Your task to perform on an android device: see creations saved in the google photos Image 0: 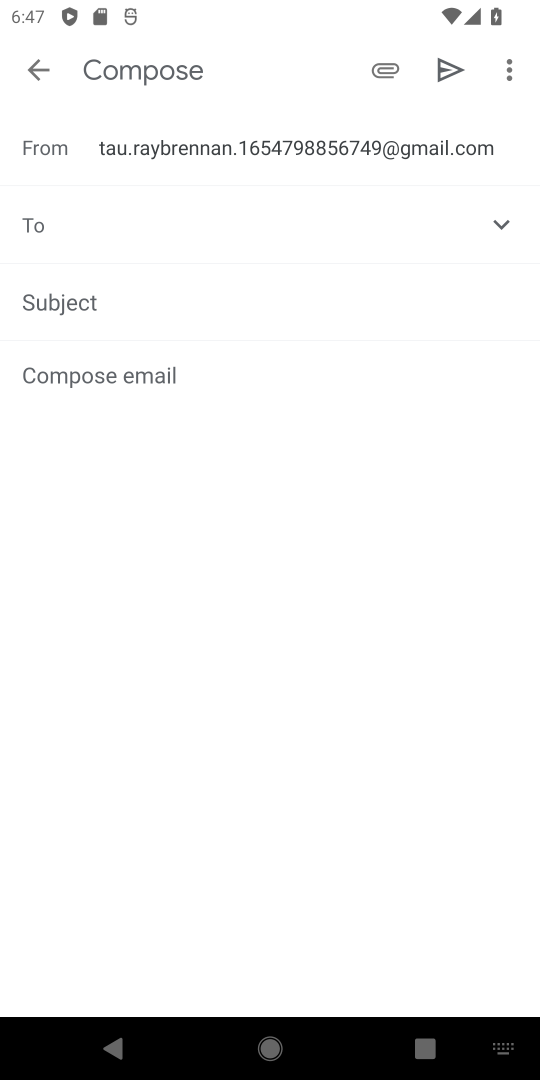
Step 0: press home button
Your task to perform on an android device: see creations saved in the google photos Image 1: 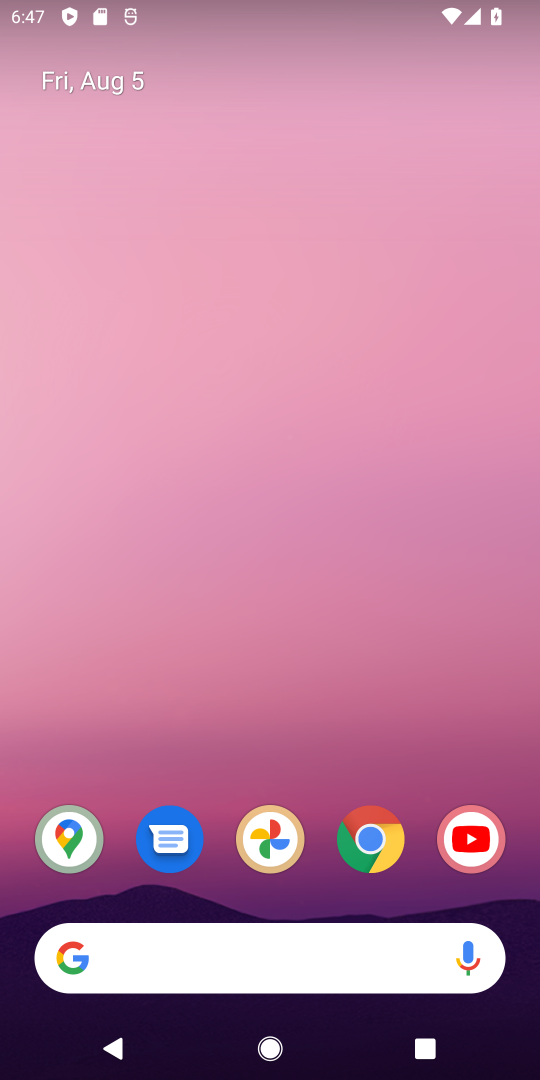
Step 1: drag from (311, 796) to (266, 325)
Your task to perform on an android device: see creations saved in the google photos Image 2: 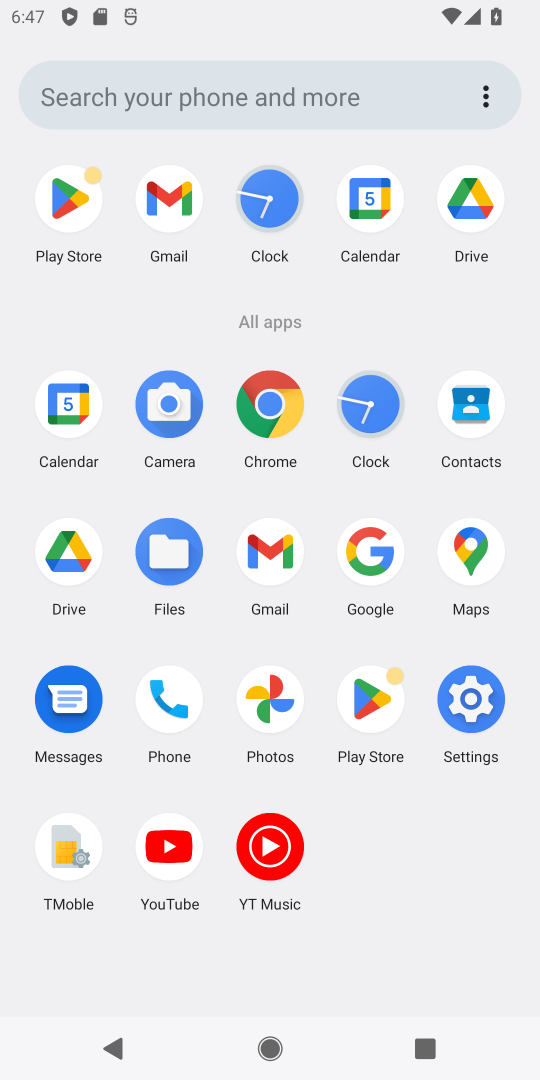
Step 2: click (265, 691)
Your task to perform on an android device: see creations saved in the google photos Image 3: 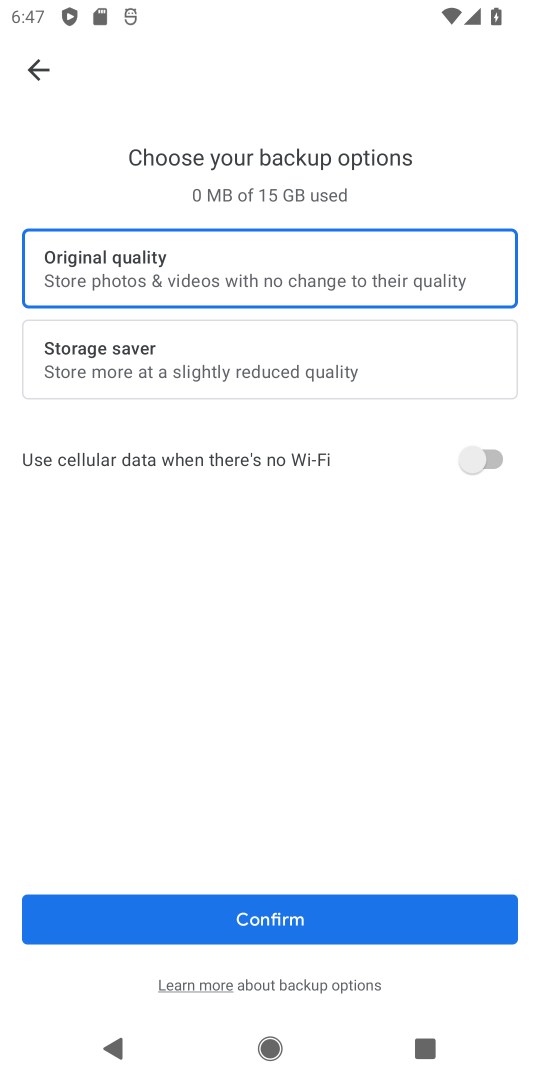
Step 3: click (34, 62)
Your task to perform on an android device: see creations saved in the google photos Image 4: 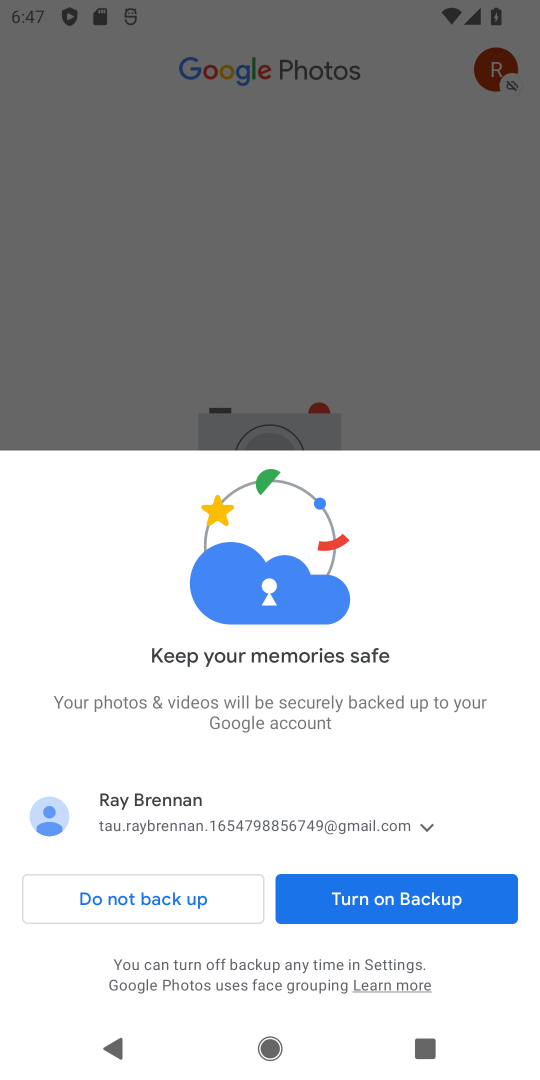
Step 4: click (335, 365)
Your task to perform on an android device: see creations saved in the google photos Image 5: 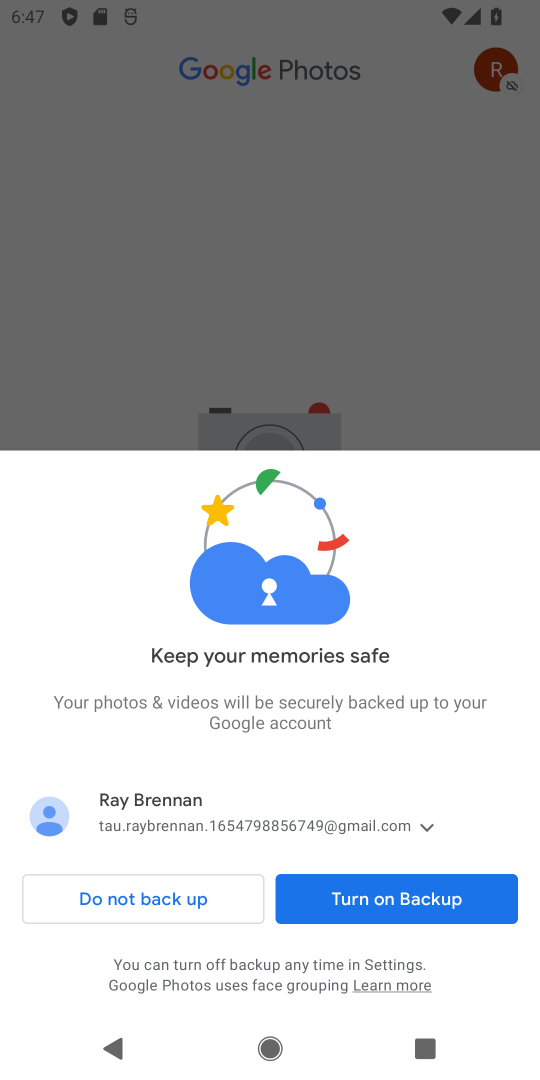
Step 5: click (180, 901)
Your task to perform on an android device: see creations saved in the google photos Image 6: 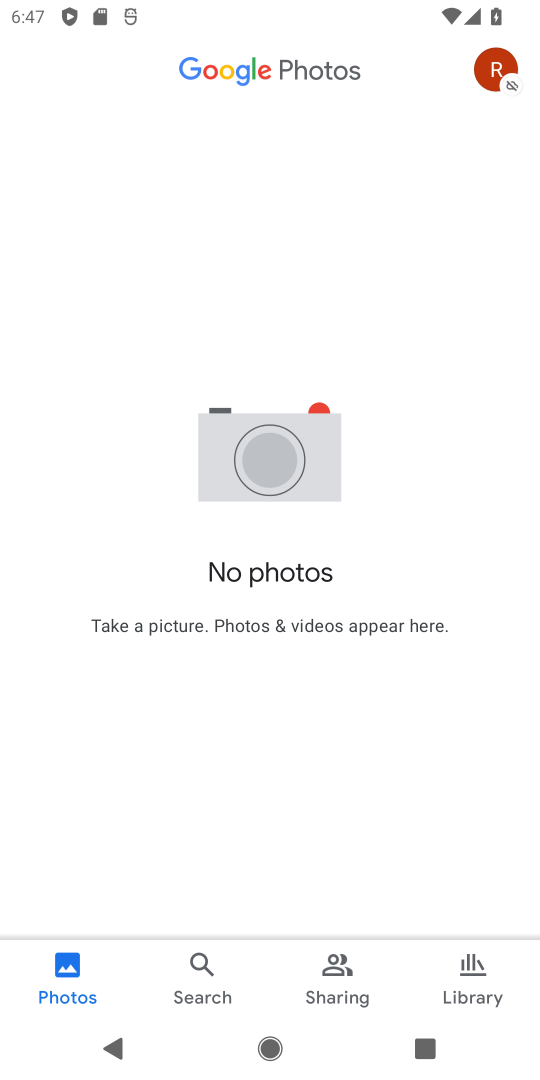
Step 6: click (202, 968)
Your task to perform on an android device: see creations saved in the google photos Image 7: 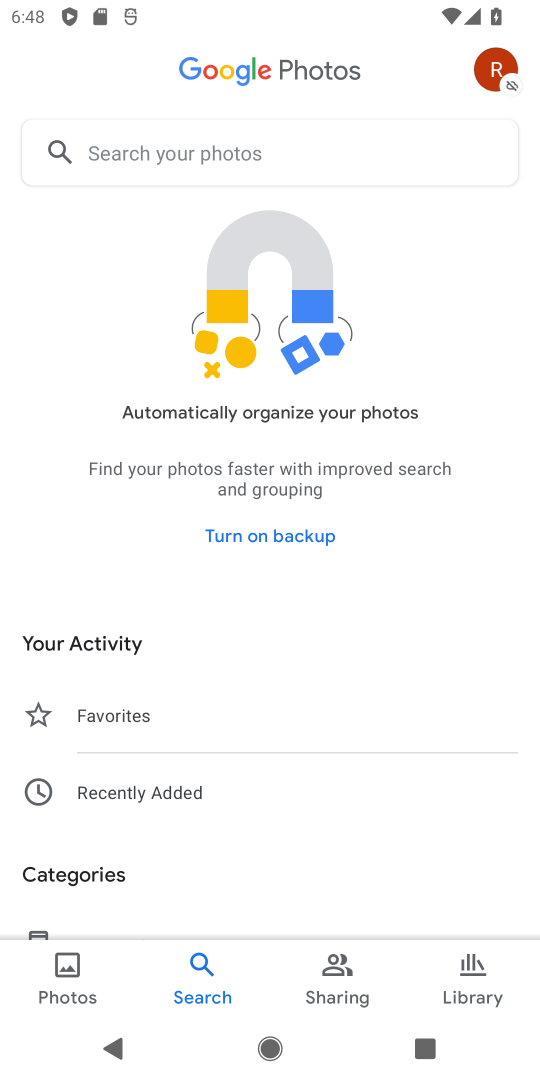
Step 7: drag from (180, 782) to (156, 497)
Your task to perform on an android device: see creations saved in the google photos Image 8: 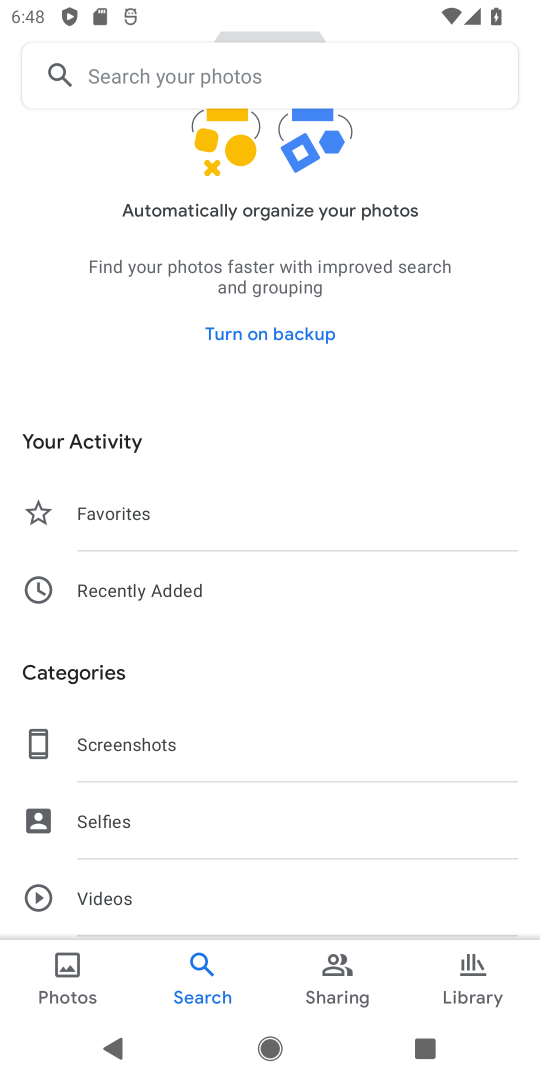
Step 8: drag from (156, 897) to (125, 473)
Your task to perform on an android device: see creations saved in the google photos Image 9: 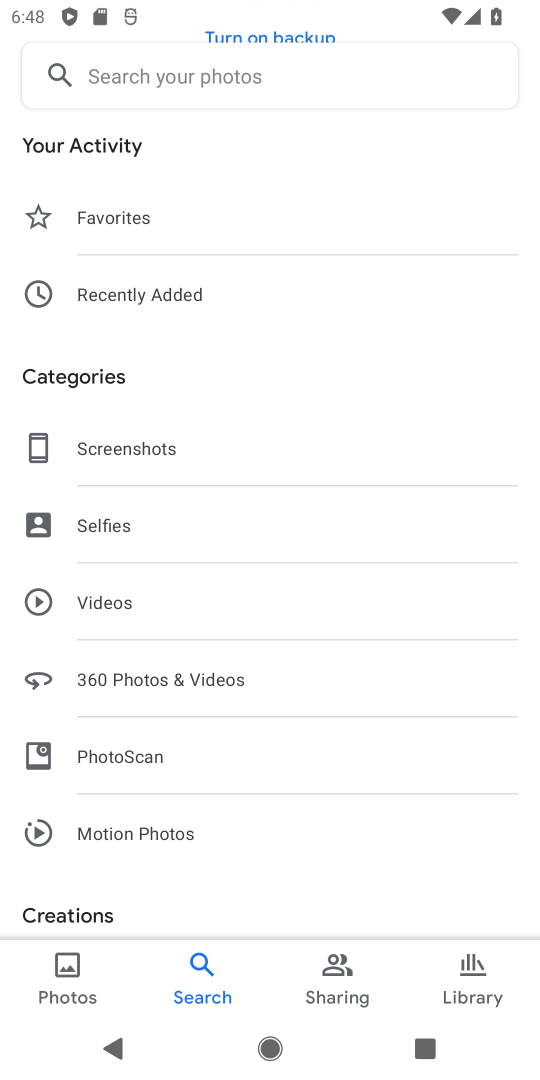
Step 9: drag from (174, 899) to (192, 463)
Your task to perform on an android device: see creations saved in the google photos Image 10: 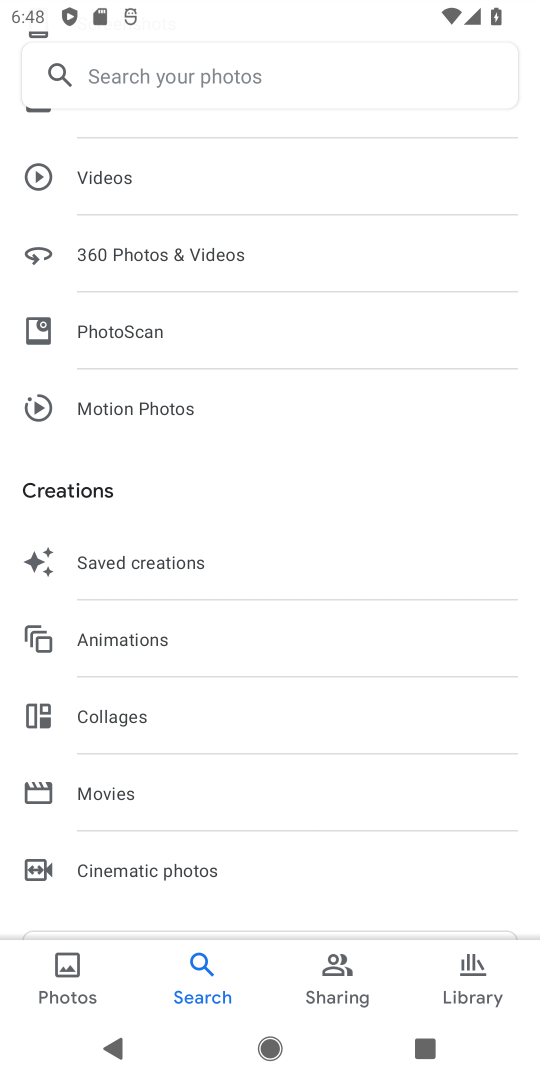
Step 10: click (130, 560)
Your task to perform on an android device: see creations saved in the google photos Image 11: 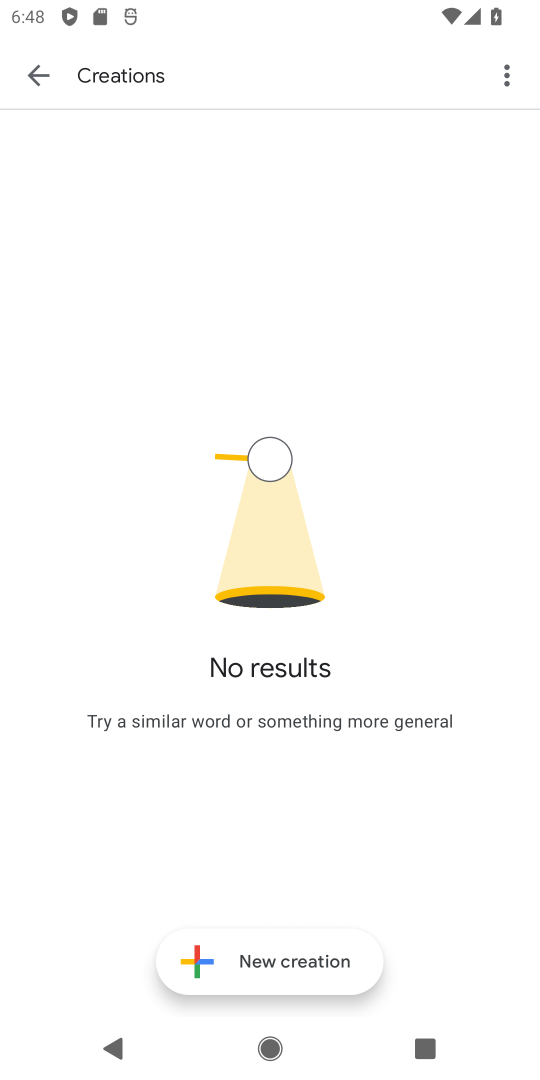
Step 11: task complete